Your task to perform on an android device: turn smart compose on in the gmail app Image 0: 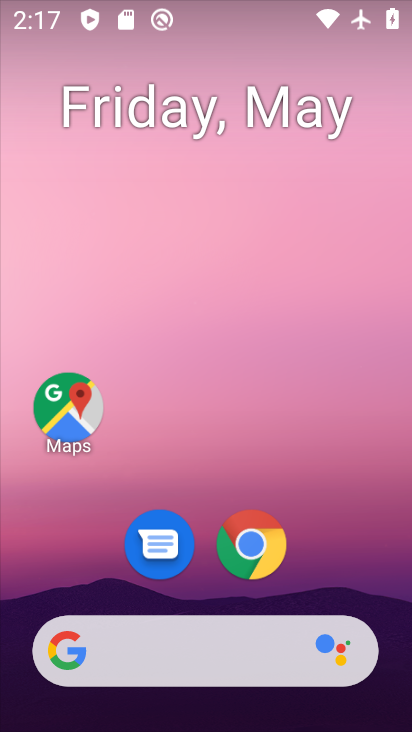
Step 0: drag from (221, 550) to (360, 47)
Your task to perform on an android device: turn smart compose on in the gmail app Image 1: 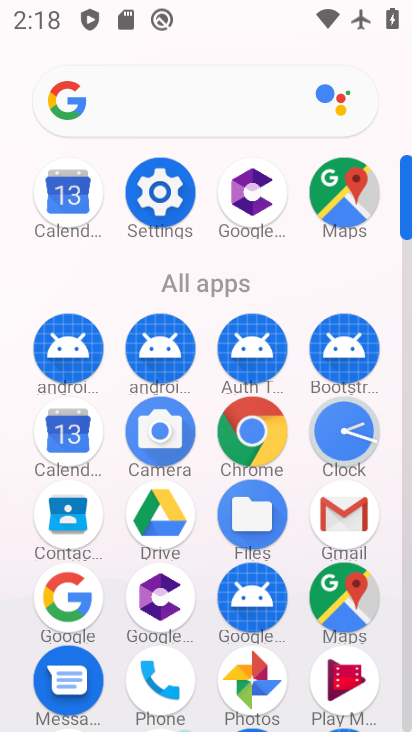
Step 1: click (338, 529)
Your task to perform on an android device: turn smart compose on in the gmail app Image 2: 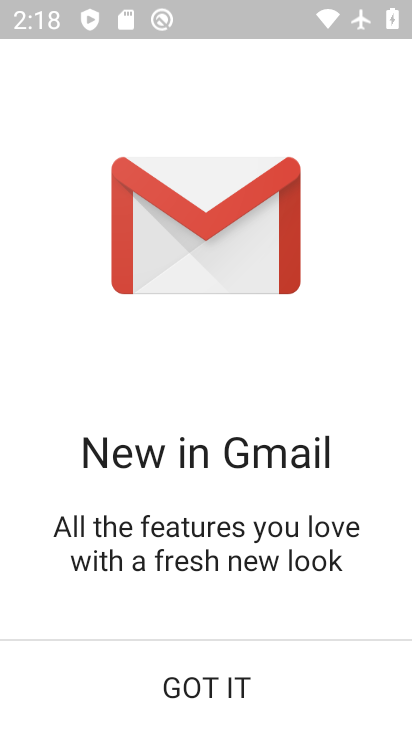
Step 2: click (219, 666)
Your task to perform on an android device: turn smart compose on in the gmail app Image 3: 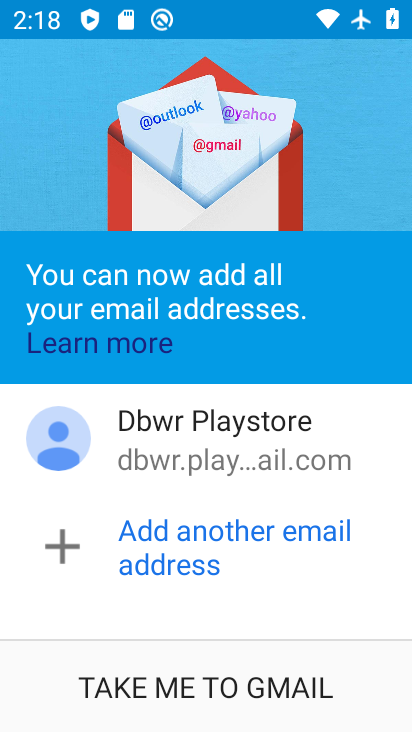
Step 3: click (192, 677)
Your task to perform on an android device: turn smart compose on in the gmail app Image 4: 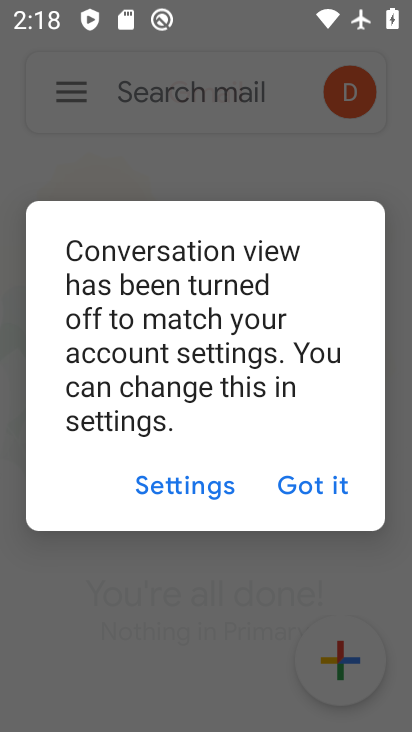
Step 4: click (320, 498)
Your task to perform on an android device: turn smart compose on in the gmail app Image 5: 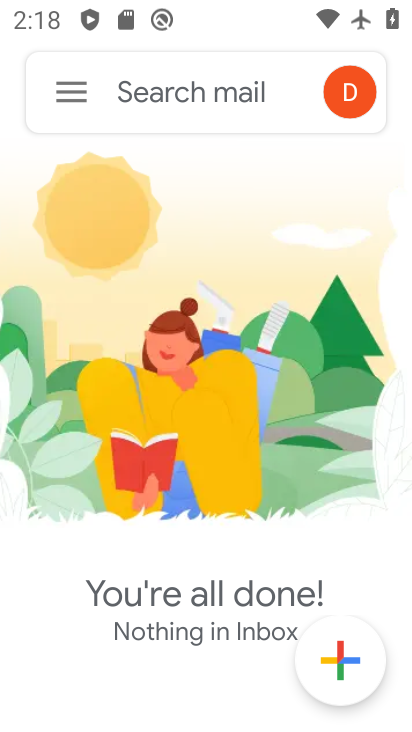
Step 5: click (66, 95)
Your task to perform on an android device: turn smart compose on in the gmail app Image 6: 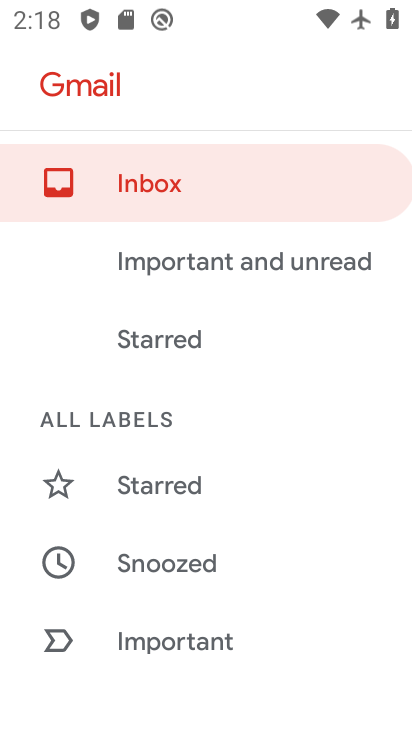
Step 6: drag from (132, 617) to (284, 84)
Your task to perform on an android device: turn smart compose on in the gmail app Image 7: 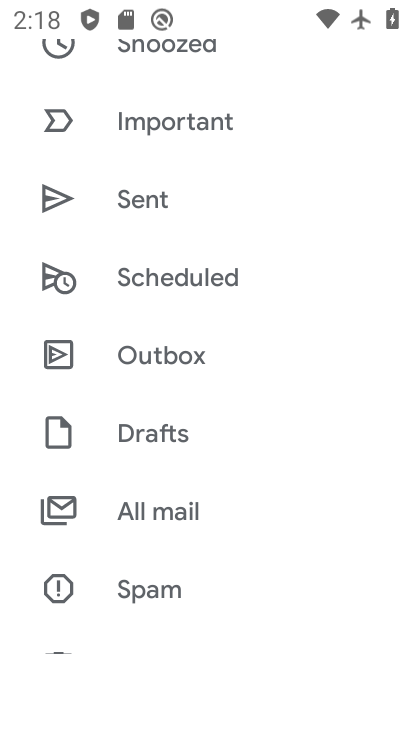
Step 7: drag from (190, 531) to (339, 17)
Your task to perform on an android device: turn smart compose on in the gmail app Image 8: 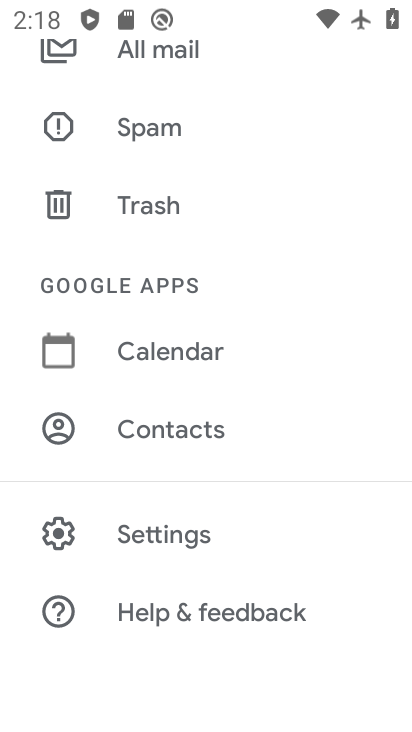
Step 8: click (170, 530)
Your task to perform on an android device: turn smart compose on in the gmail app Image 9: 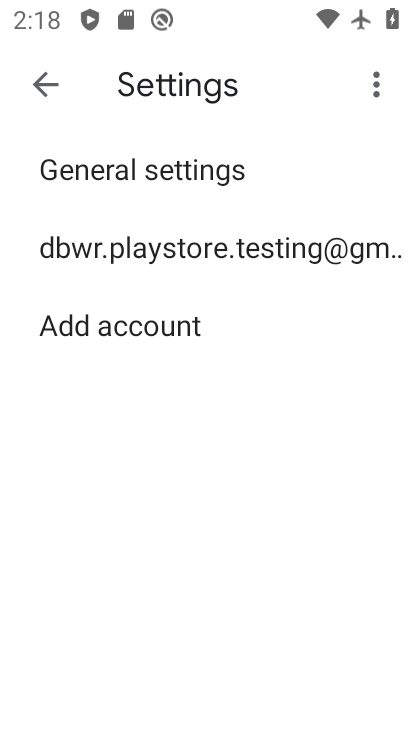
Step 9: drag from (180, 528) to (259, 231)
Your task to perform on an android device: turn smart compose on in the gmail app Image 10: 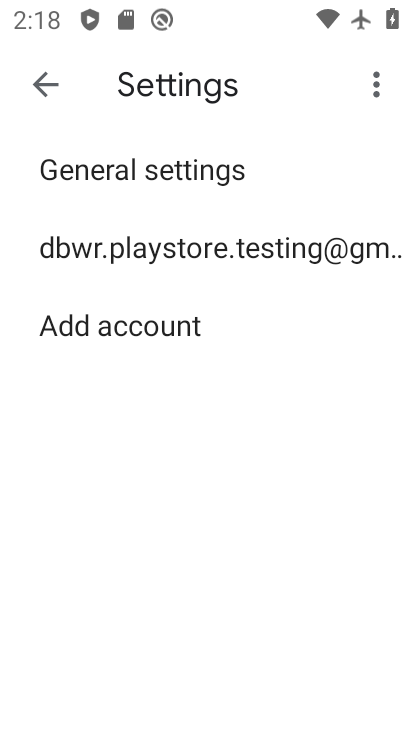
Step 10: click (239, 244)
Your task to perform on an android device: turn smart compose on in the gmail app Image 11: 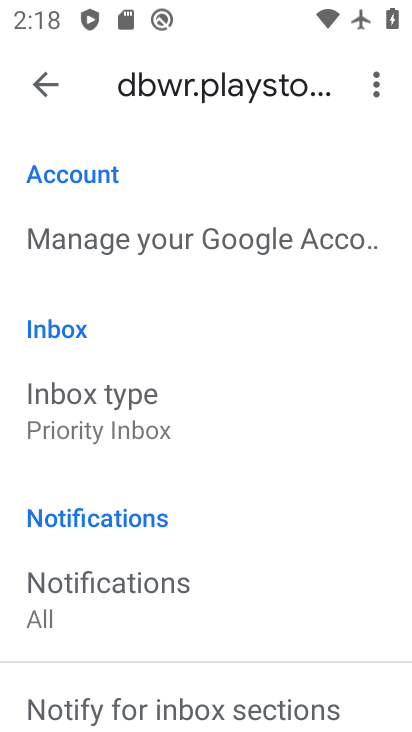
Step 11: task complete